Your task to perform on an android device: What's on my calendar today? Image 0: 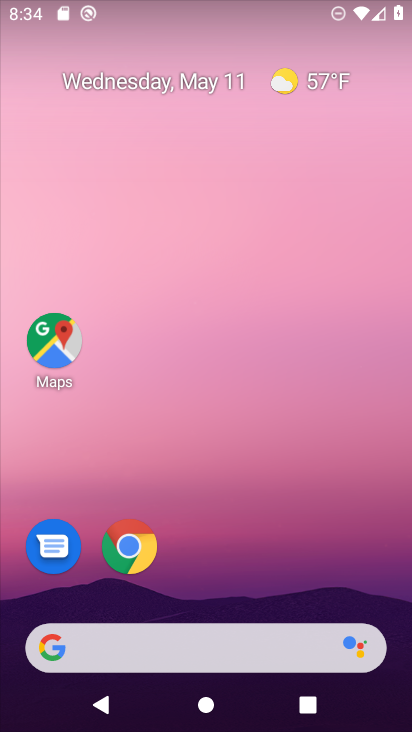
Step 0: drag from (216, 567) to (207, 141)
Your task to perform on an android device: What's on my calendar today? Image 1: 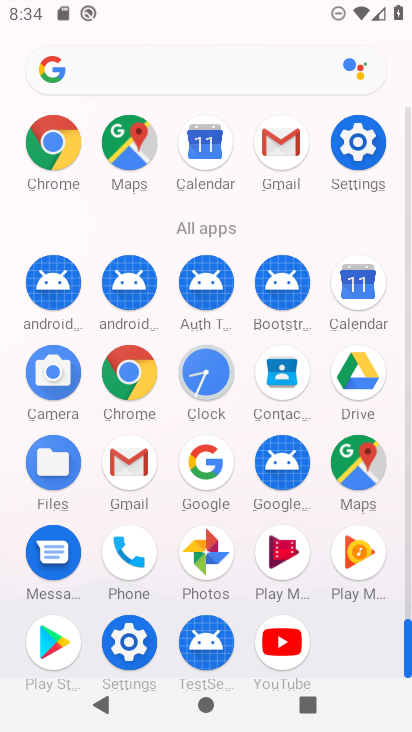
Step 1: click (338, 286)
Your task to perform on an android device: What's on my calendar today? Image 2: 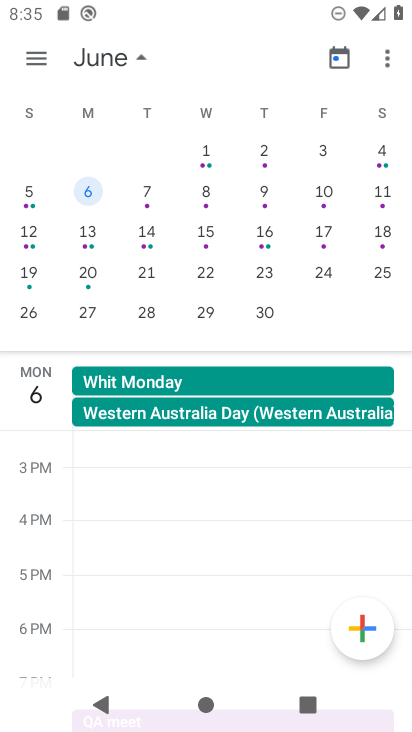
Step 2: drag from (43, 234) to (324, 239)
Your task to perform on an android device: What's on my calendar today? Image 3: 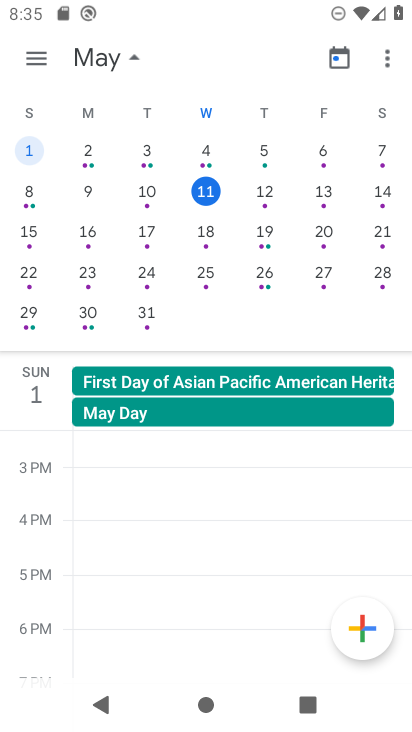
Step 3: click (202, 179)
Your task to perform on an android device: What's on my calendar today? Image 4: 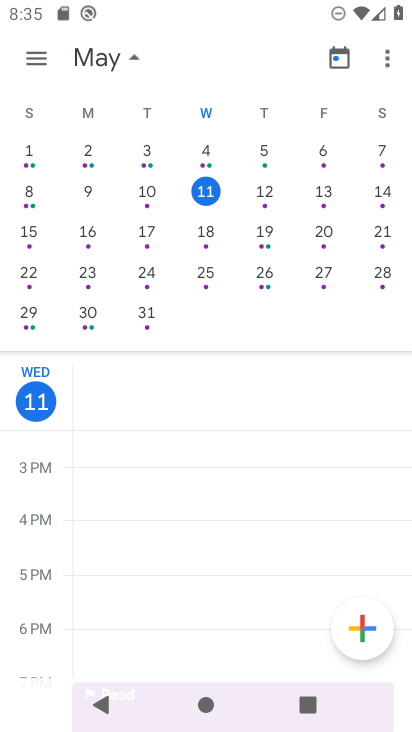
Step 4: task complete